Your task to perform on an android device: snooze an email in the gmail app Image 0: 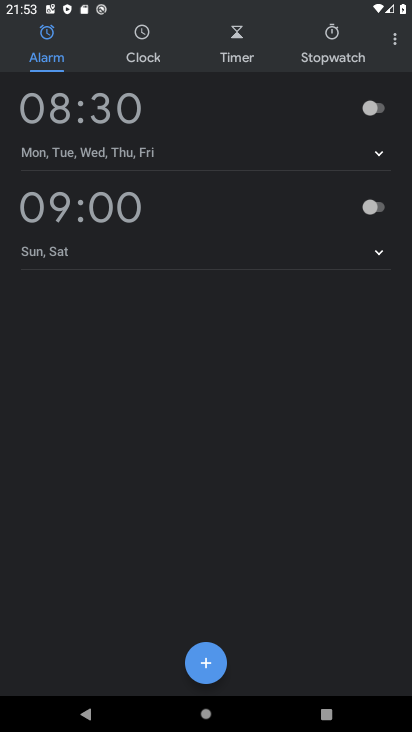
Step 0: press home button
Your task to perform on an android device: snooze an email in the gmail app Image 1: 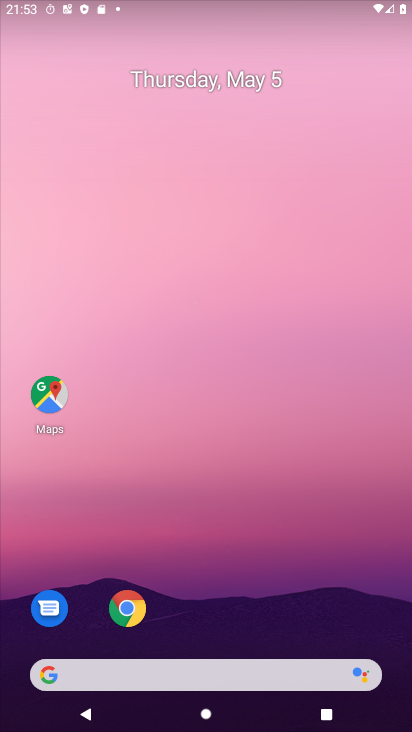
Step 1: drag from (197, 545) to (195, 1)
Your task to perform on an android device: snooze an email in the gmail app Image 2: 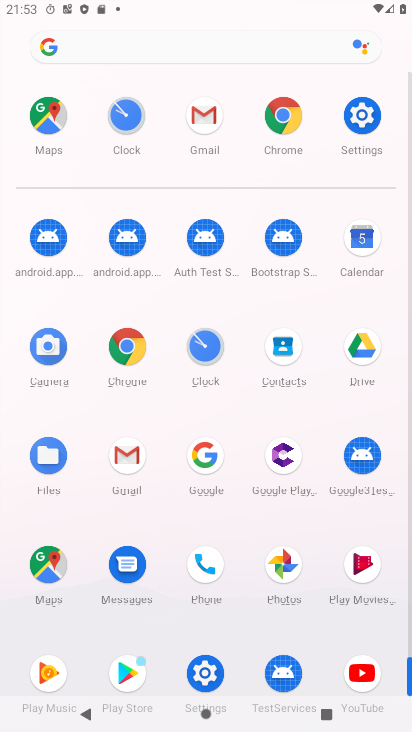
Step 2: click (122, 459)
Your task to perform on an android device: snooze an email in the gmail app Image 3: 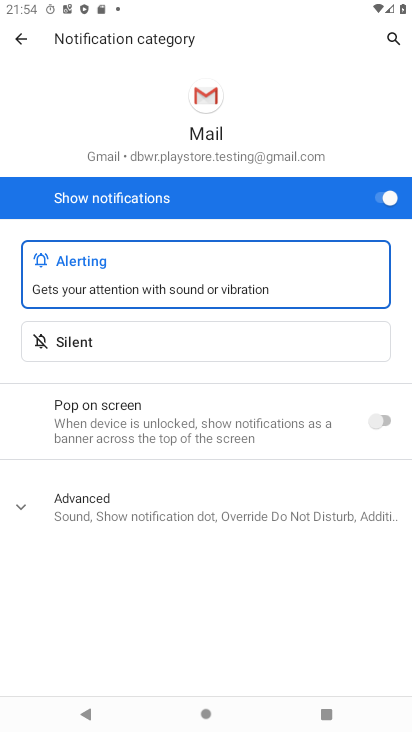
Step 3: press back button
Your task to perform on an android device: snooze an email in the gmail app Image 4: 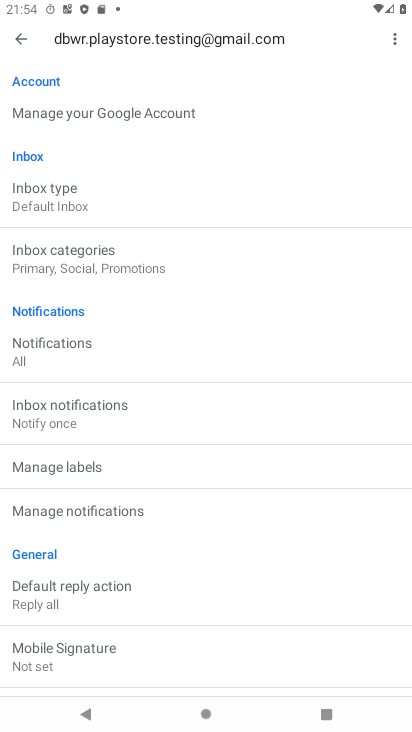
Step 4: press back button
Your task to perform on an android device: snooze an email in the gmail app Image 5: 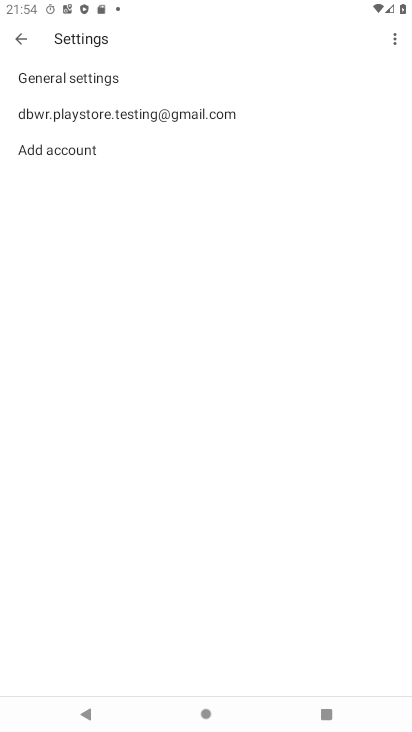
Step 5: press back button
Your task to perform on an android device: snooze an email in the gmail app Image 6: 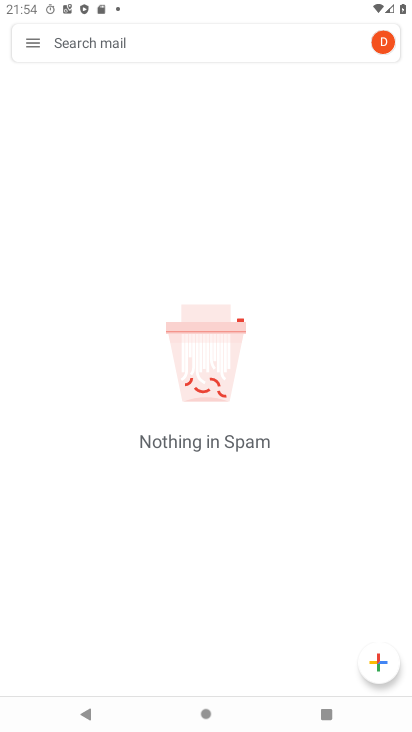
Step 6: click (39, 40)
Your task to perform on an android device: snooze an email in the gmail app Image 7: 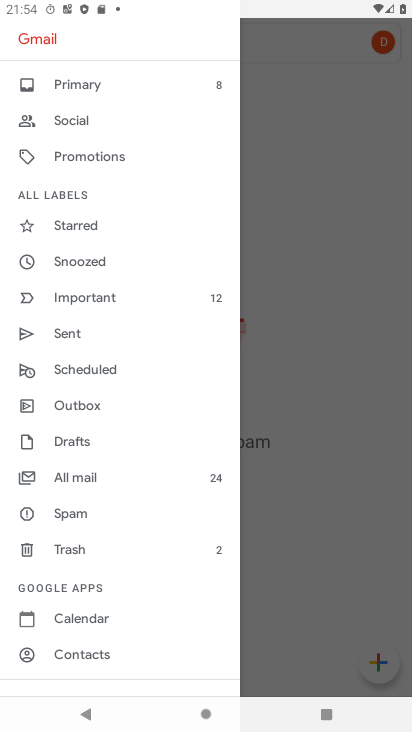
Step 7: drag from (102, 187) to (135, 461)
Your task to perform on an android device: snooze an email in the gmail app Image 8: 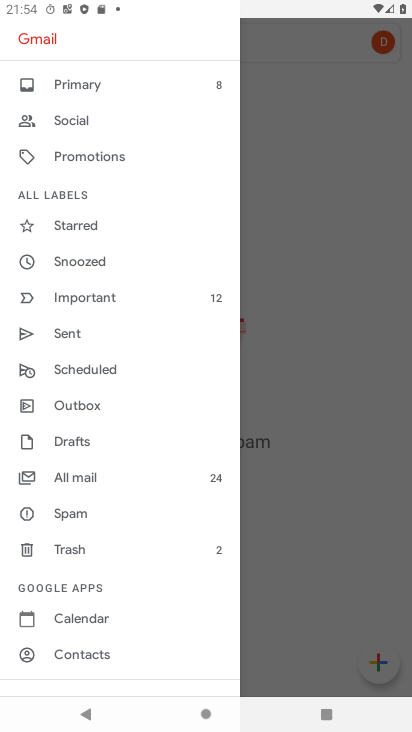
Step 8: click (100, 90)
Your task to perform on an android device: snooze an email in the gmail app Image 9: 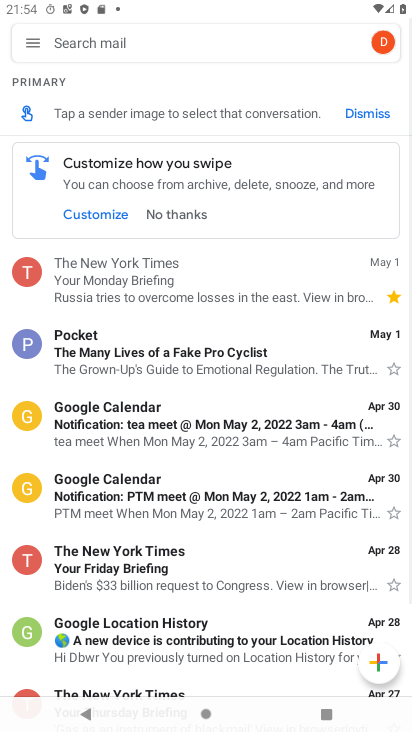
Step 9: drag from (203, 605) to (184, 309)
Your task to perform on an android device: snooze an email in the gmail app Image 10: 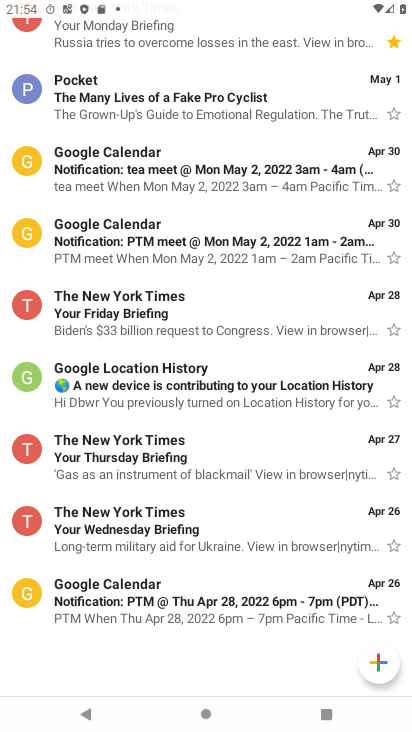
Step 10: drag from (199, 103) to (228, 229)
Your task to perform on an android device: snooze an email in the gmail app Image 11: 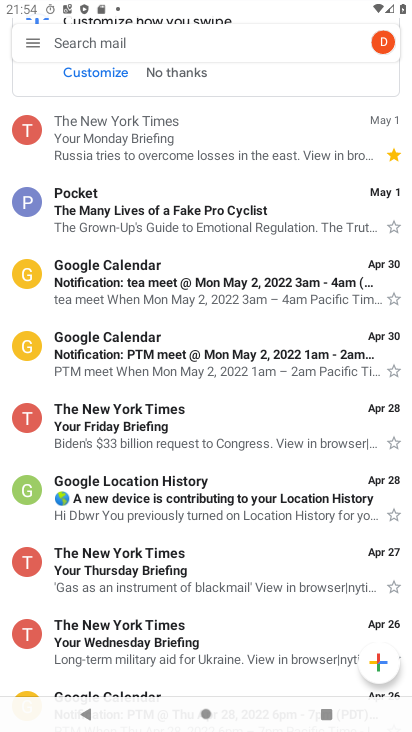
Step 11: drag from (246, 202) to (263, 584)
Your task to perform on an android device: snooze an email in the gmail app Image 12: 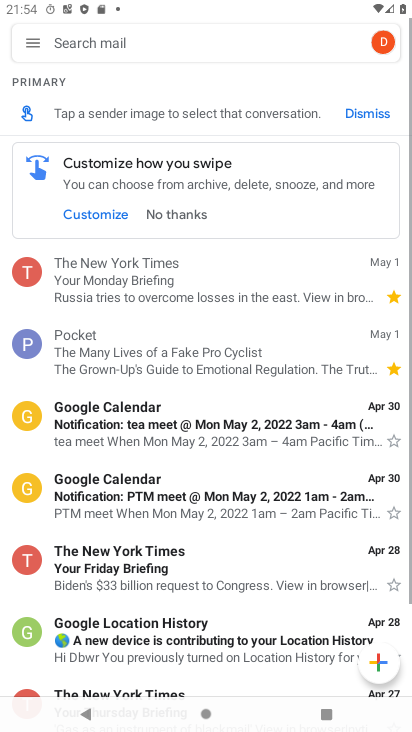
Step 12: click (301, 360)
Your task to perform on an android device: snooze an email in the gmail app Image 13: 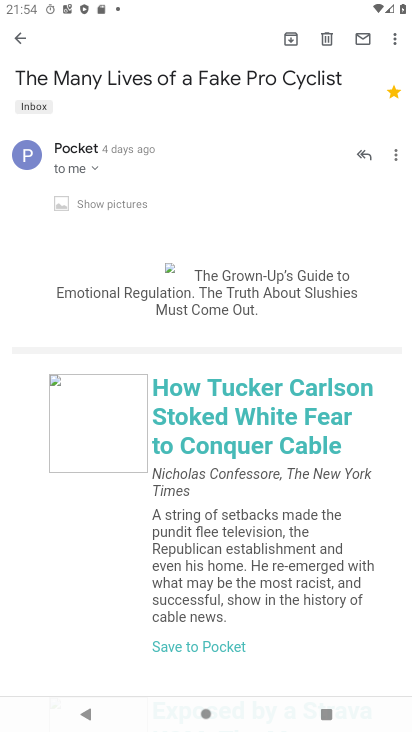
Step 13: click (389, 40)
Your task to perform on an android device: snooze an email in the gmail app Image 14: 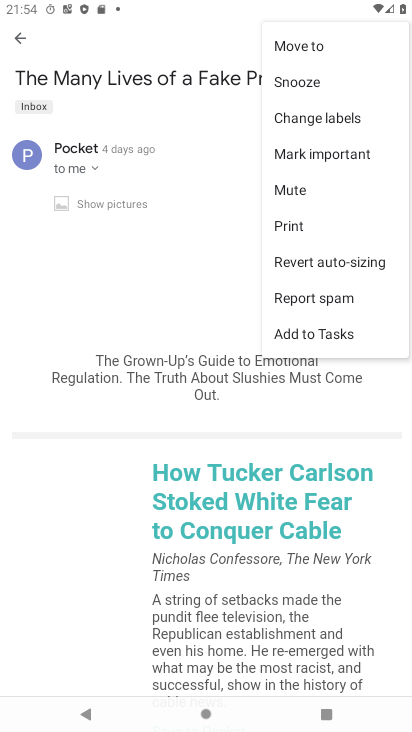
Step 14: click (301, 83)
Your task to perform on an android device: snooze an email in the gmail app Image 15: 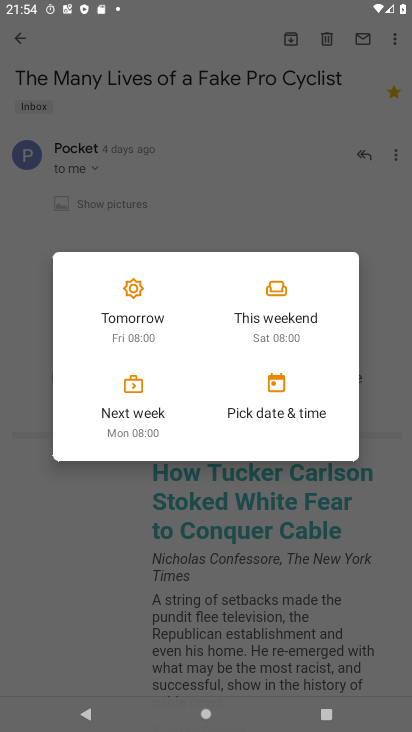
Step 15: click (129, 393)
Your task to perform on an android device: snooze an email in the gmail app Image 16: 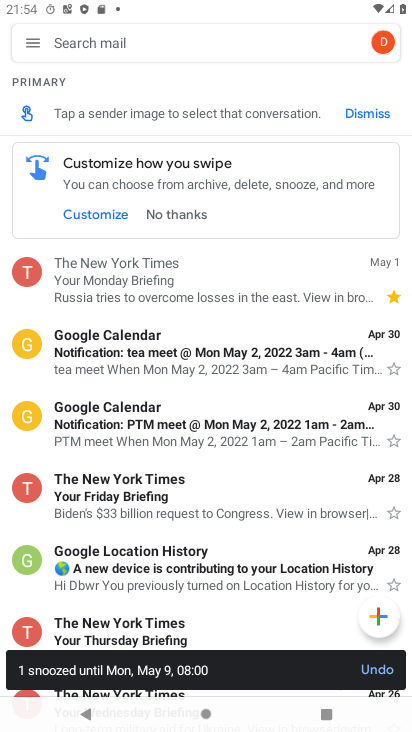
Step 16: task complete